Your task to perform on an android device: turn off notifications in google photos Image 0: 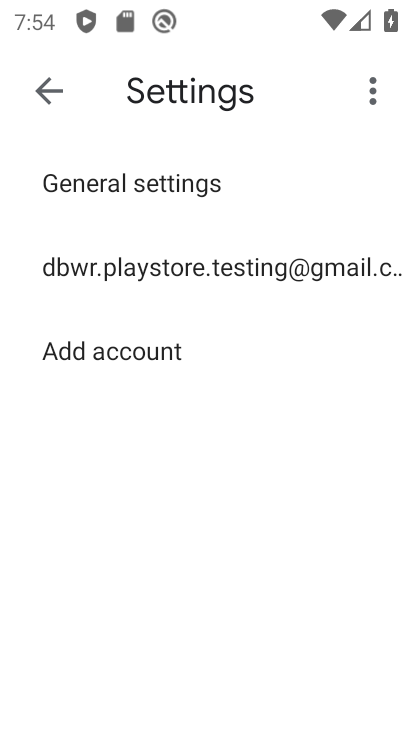
Step 0: press home button
Your task to perform on an android device: turn off notifications in google photos Image 1: 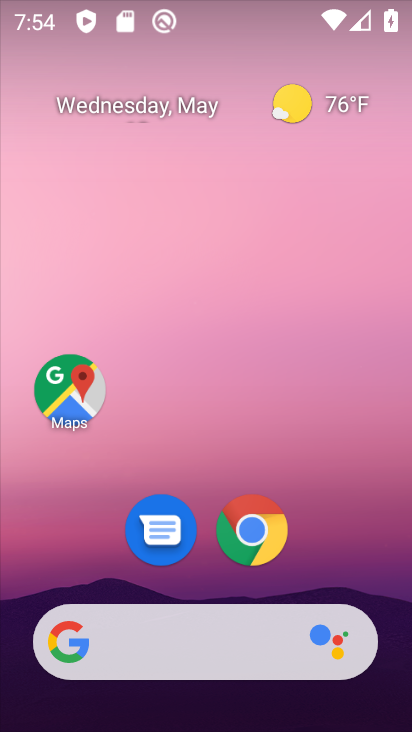
Step 1: drag from (344, 536) to (344, 231)
Your task to perform on an android device: turn off notifications in google photos Image 2: 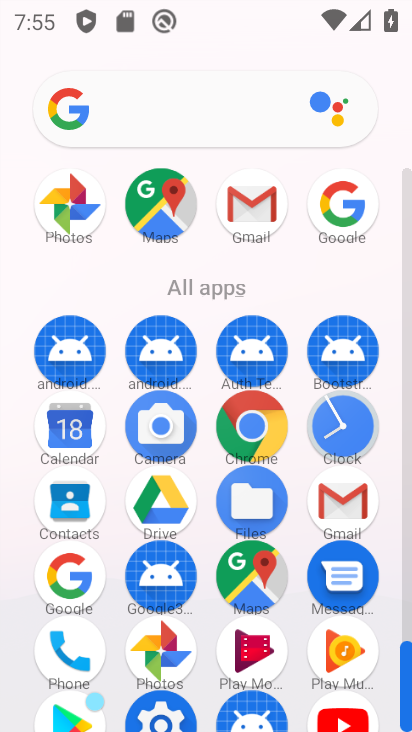
Step 2: click (154, 647)
Your task to perform on an android device: turn off notifications in google photos Image 3: 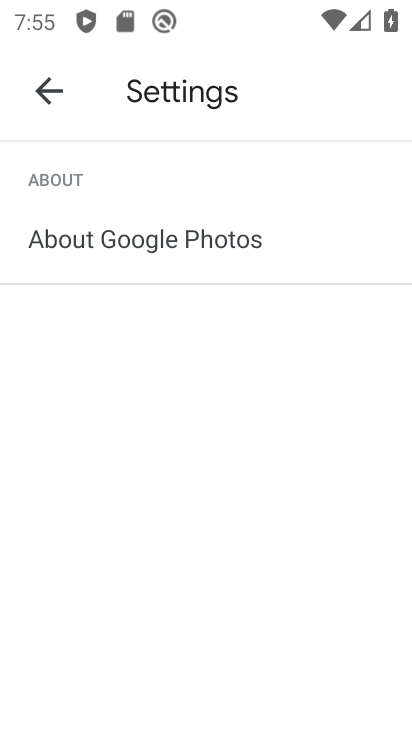
Step 3: click (51, 95)
Your task to perform on an android device: turn off notifications in google photos Image 4: 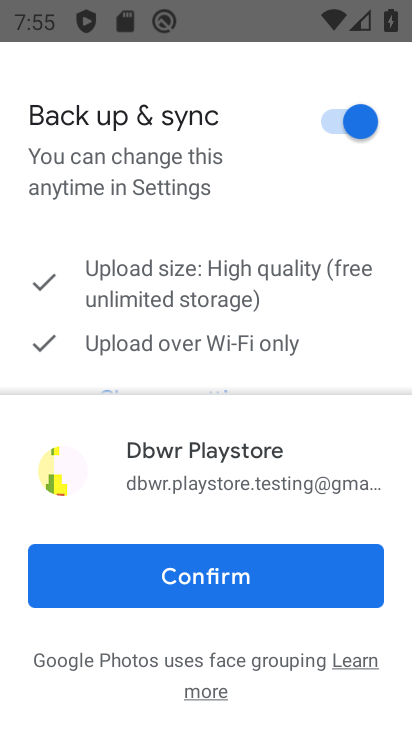
Step 4: click (156, 593)
Your task to perform on an android device: turn off notifications in google photos Image 5: 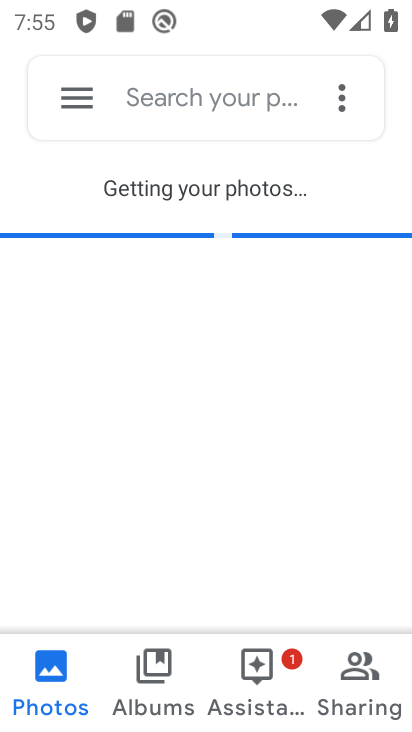
Step 5: click (82, 107)
Your task to perform on an android device: turn off notifications in google photos Image 6: 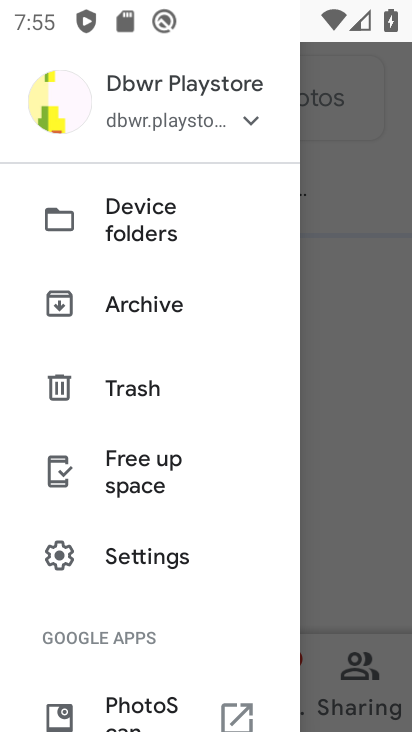
Step 6: click (155, 553)
Your task to perform on an android device: turn off notifications in google photos Image 7: 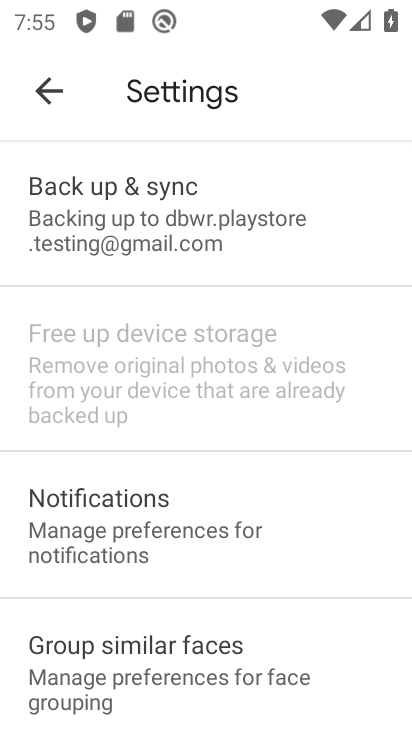
Step 7: click (148, 530)
Your task to perform on an android device: turn off notifications in google photos Image 8: 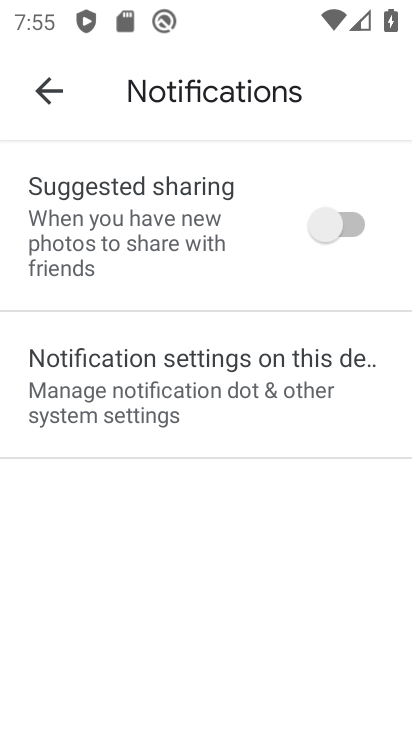
Step 8: click (176, 410)
Your task to perform on an android device: turn off notifications in google photos Image 9: 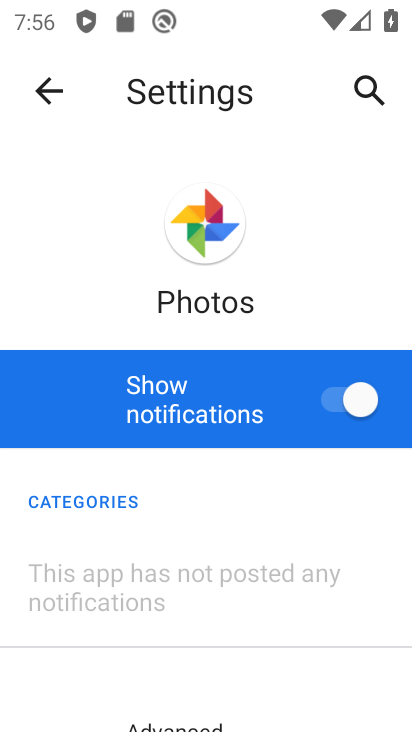
Step 9: click (328, 411)
Your task to perform on an android device: turn off notifications in google photos Image 10: 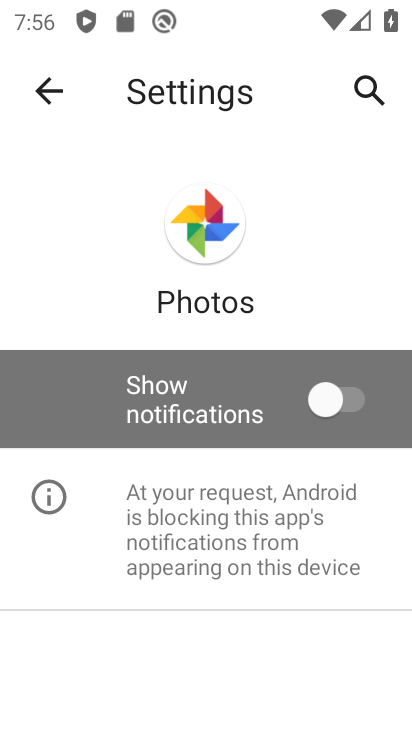
Step 10: task complete